Your task to perform on an android device: open app "DoorDash - Dasher" Image 0: 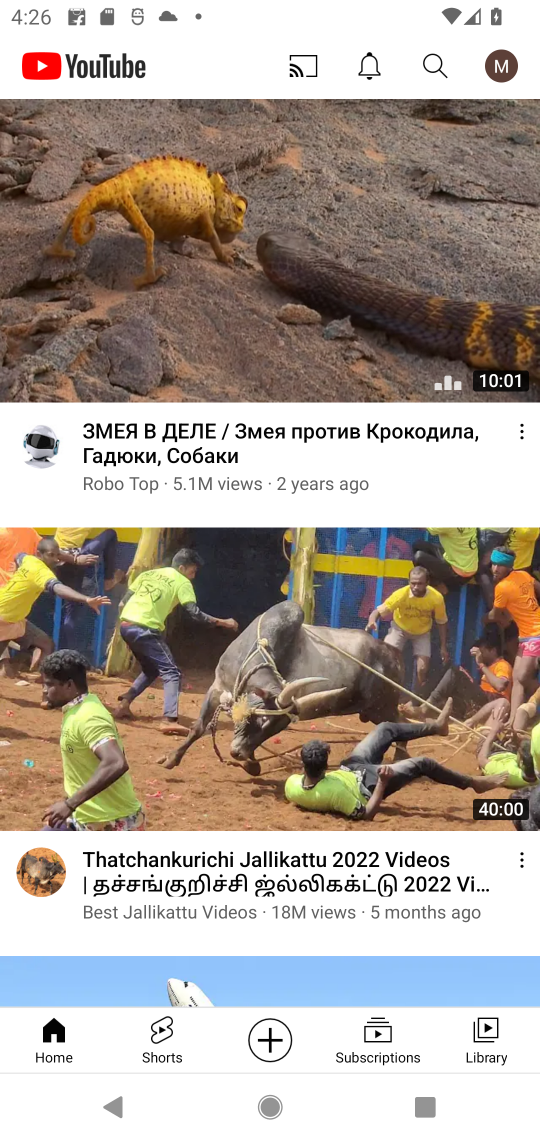
Step 0: press home button
Your task to perform on an android device: open app "DoorDash - Dasher" Image 1: 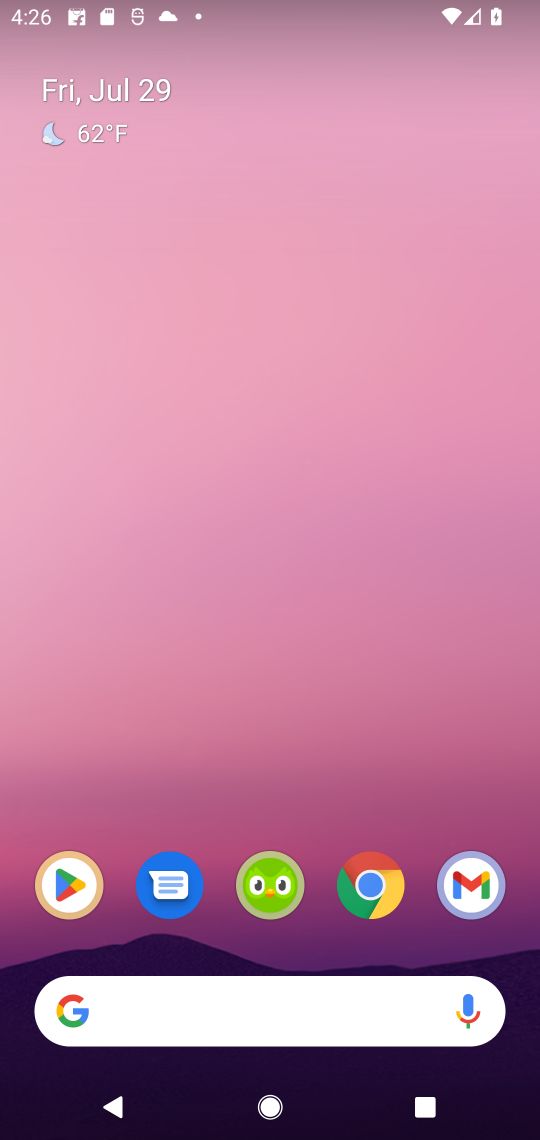
Step 1: click (97, 877)
Your task to perform on an android device: open app "DoorDash - Dasher" Image 2: 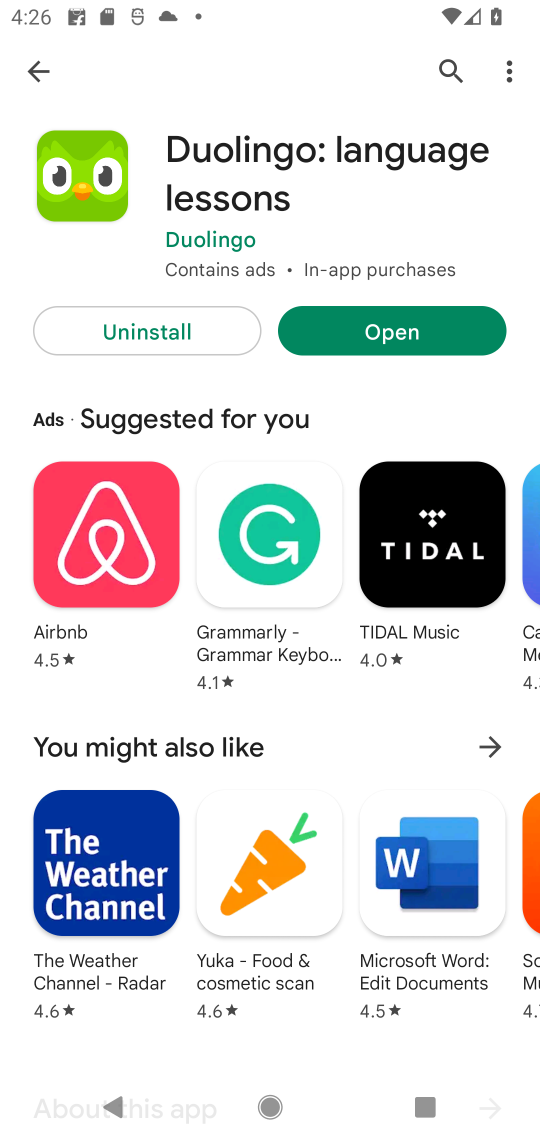
Step 2: click (452, 64)
Your task to perform on an android device: open app "DoorDash - Dasher" Image 3: 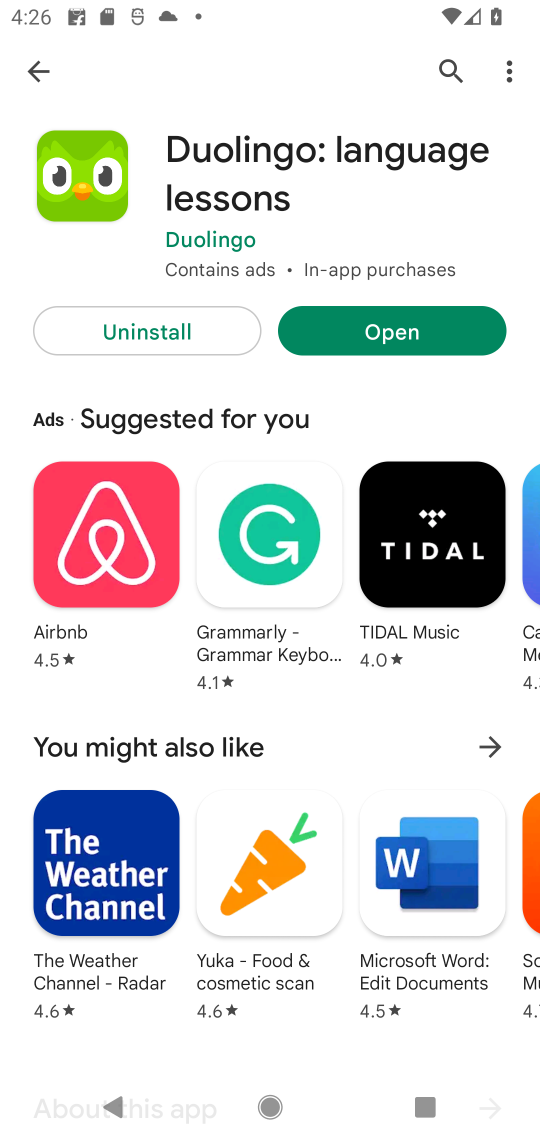
Step 3: click (442, 76)
Your task to perform on an android device: open app "DoorDash - Dasher" Image 4: 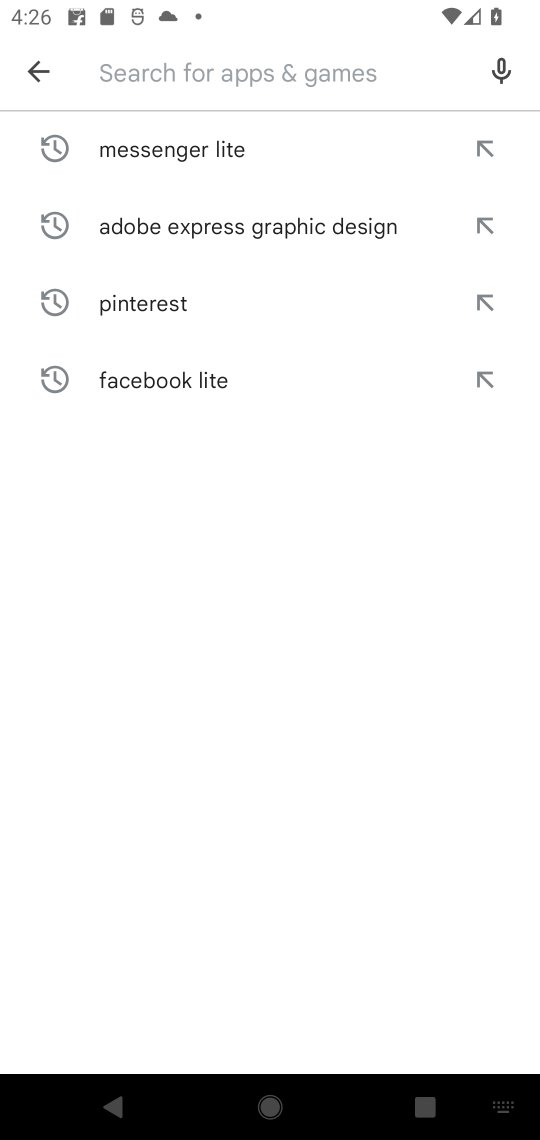
Step 4: type "DoorDash - Dasher"
Your task to perform on an android device: open app "DoorDash - Dasher" Image 5: 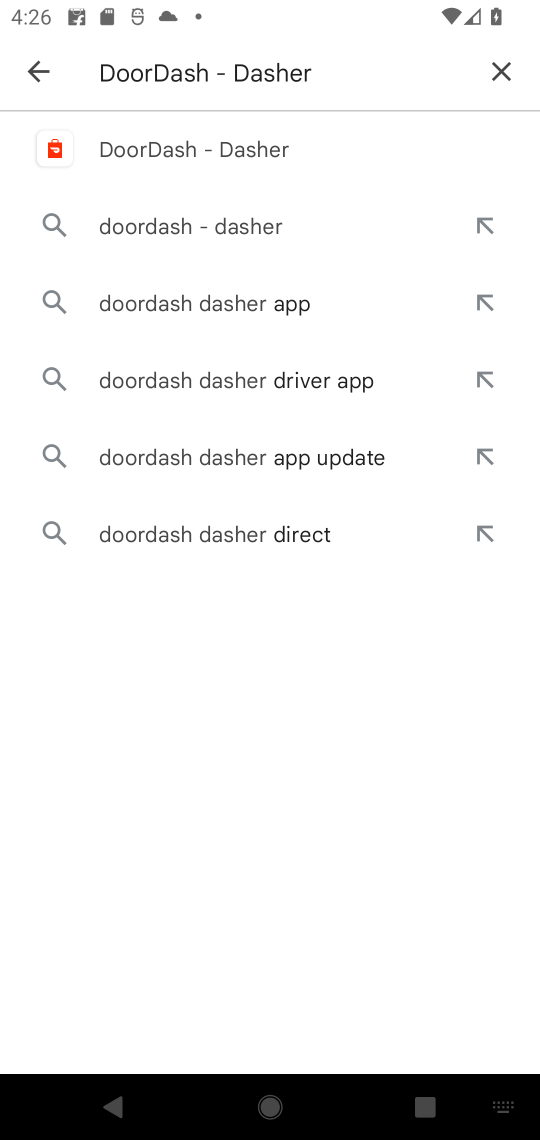
Step 5: click (252, 147)
Your task to perform on an android device: open app "DoorDash - Dasher" Image 6: 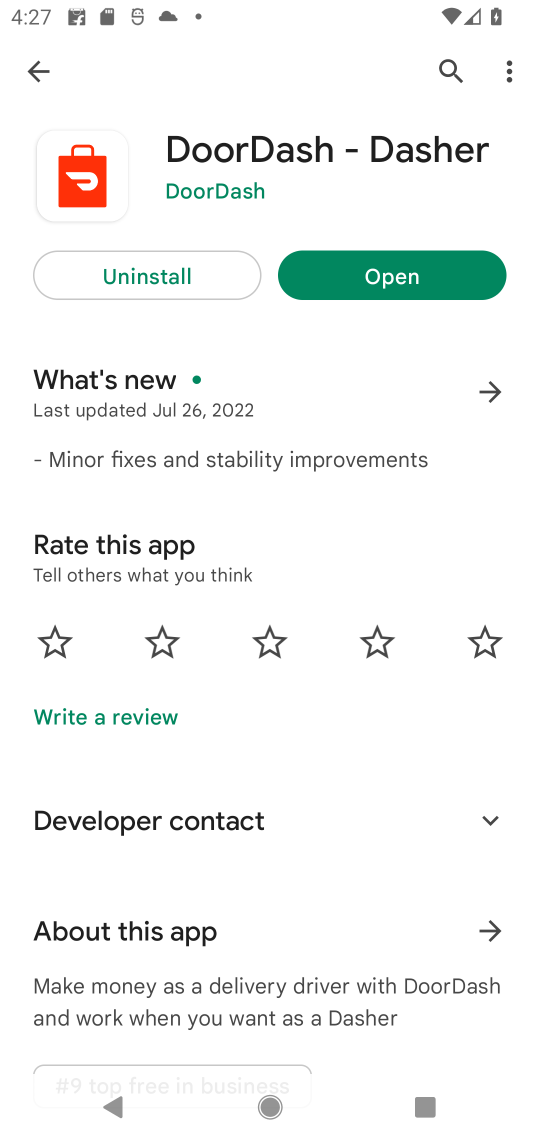
Step 6: click (370, 285)
Your task to perform on an android device: open app "DoorDash - Dasher" Image 7: 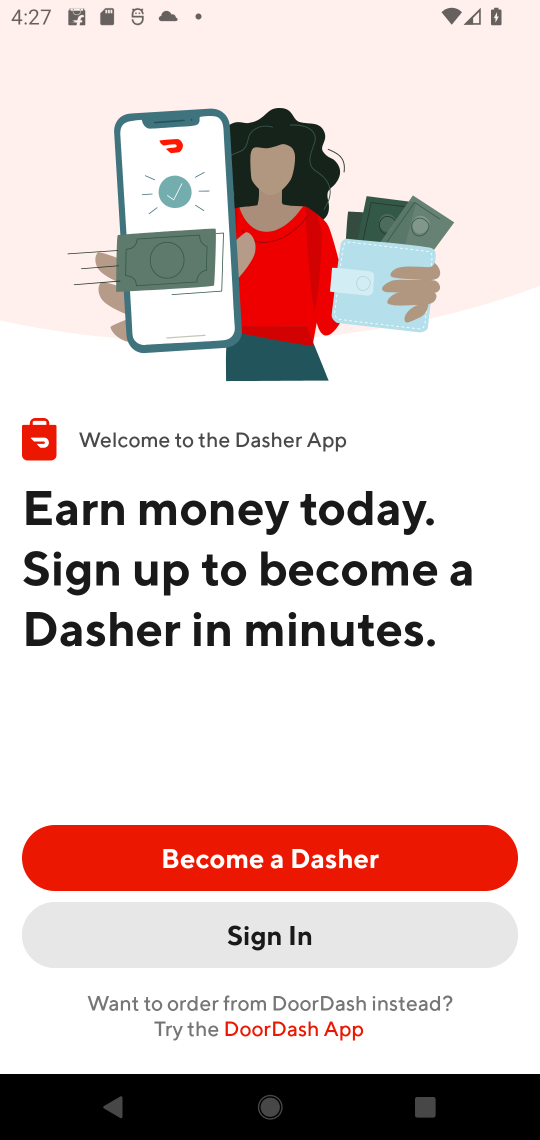
Step 7: task complete